Your task to perform on an android device: turn off notifications in google photos Image 0: 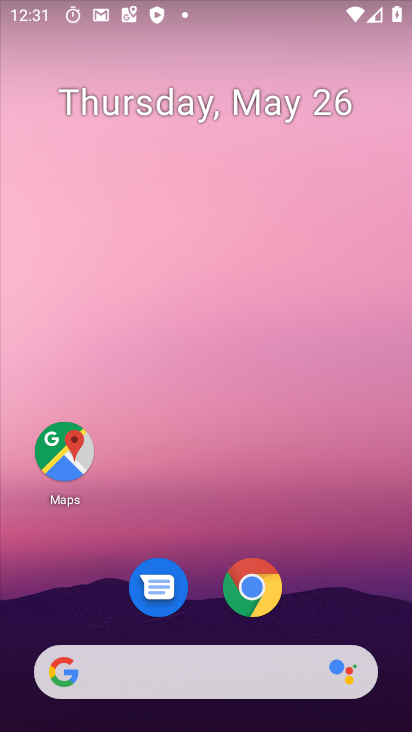
Step 0: drag from (304, 696) to (349, 165)
Your task to perform on an android device: turn off notifications in google photos Image 1: 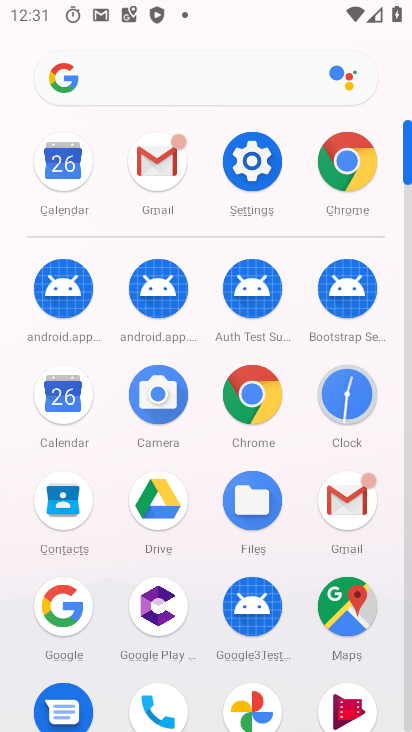
Step 1: click (257, 690)
Your task to perform on an android device: turn off notifications in google photos Image 2: 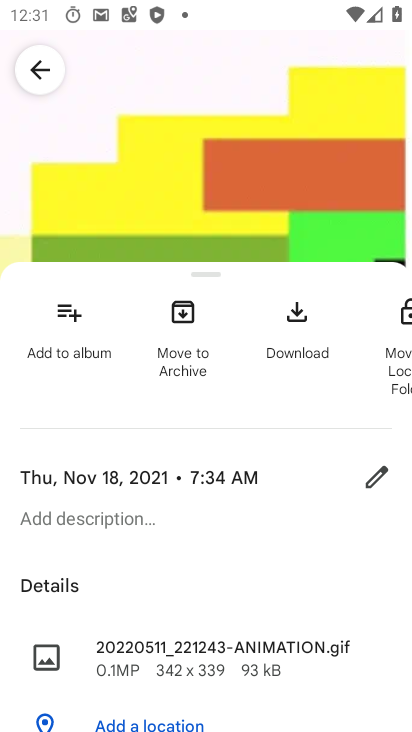
Step 2: click (25, 70)
Your task to perform on an android device: turn off notifications in google photos Image 3: 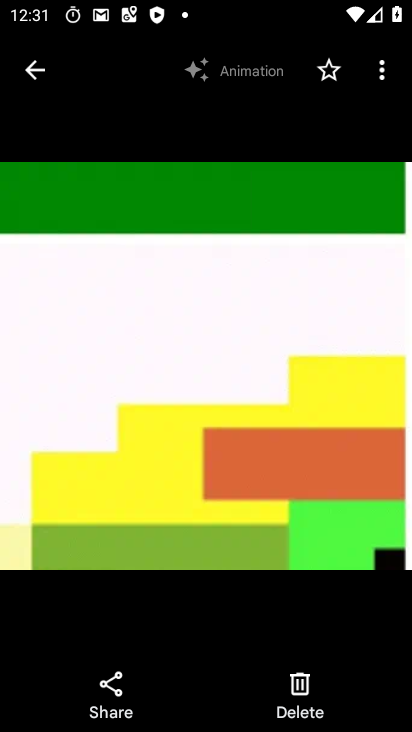
Step 3: click (52, 67)
Your task to perform on an android device: turn off notifications in google photos Image 4: 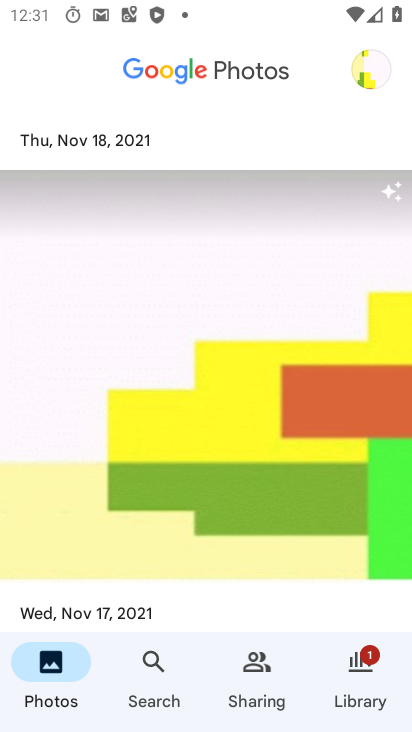
Step 4: click (380, 81)
Your task to perform on an android device: turn off notifications in google photos Image 5: 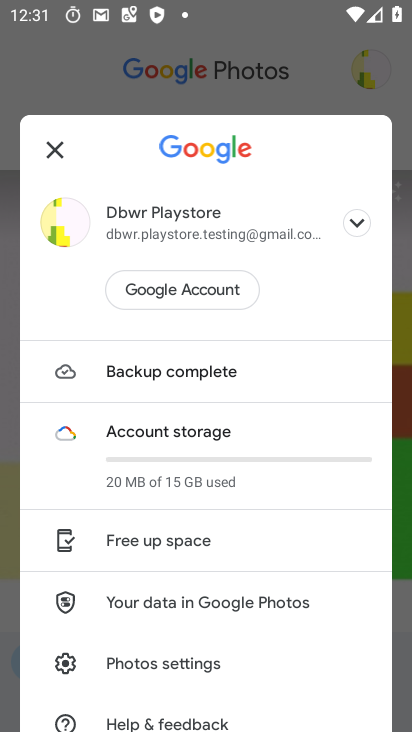
Step 5: click (146, 653)
Your task to perform on an android device: turn off notifications in google photos Image 6: 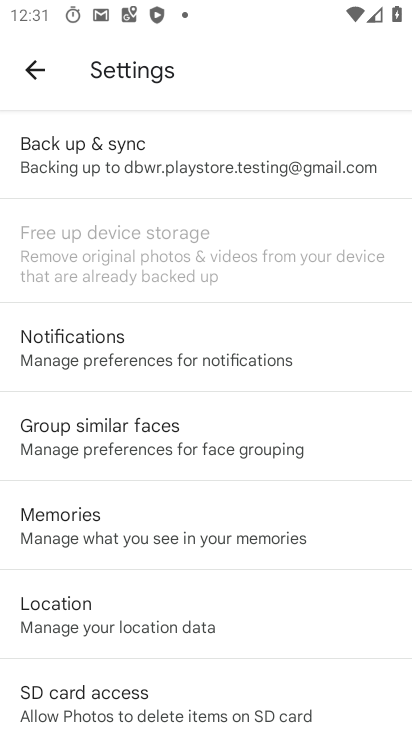
Step 6: click (112, 370)
Your task to perform on an android device: turn off notifications in google photos Image 7: 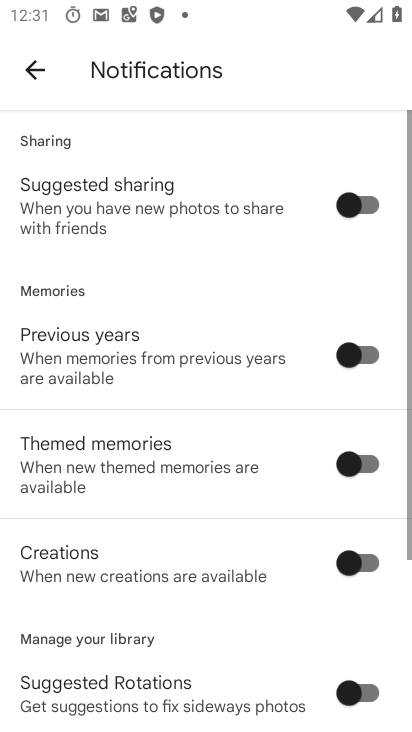
Step 7: drag from (142, 585) to (207, 238)
Your task to perform on an android device: turn off notifications in google photos Image 8: 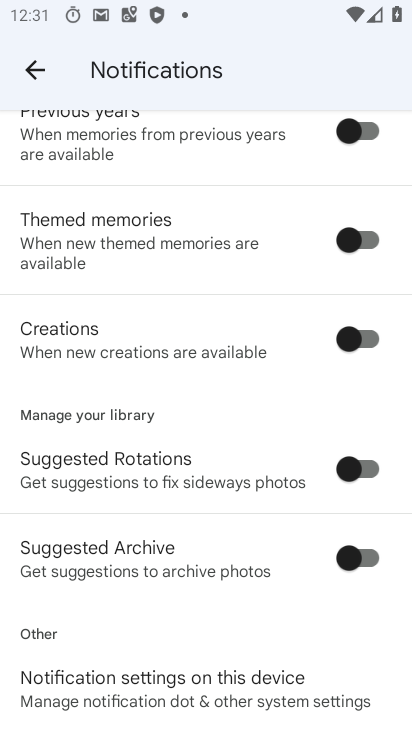
Step 8: click (201, 675)
Your task to perform on an android device: turn off notifications in google photos Image 9: 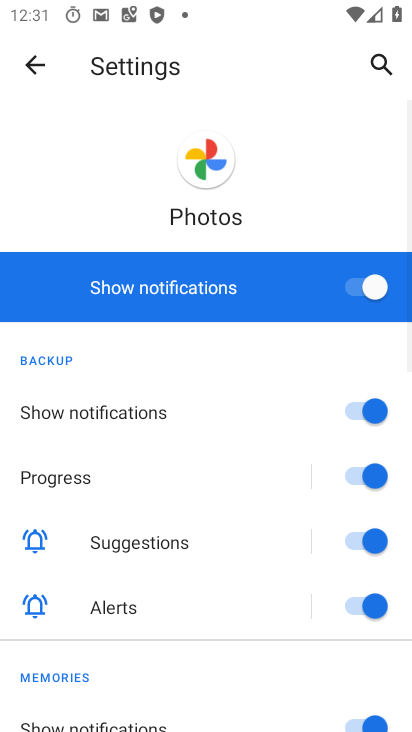
Step 9: click (365, 280)
Your task to perform on an android device: turn off notifications in google photos Image 10: 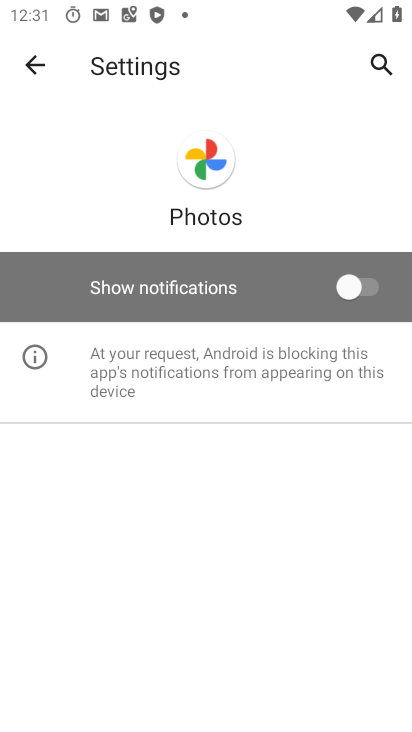
Step 10: task complete